Your task to perform on an android device: change notifications settings Image 0: 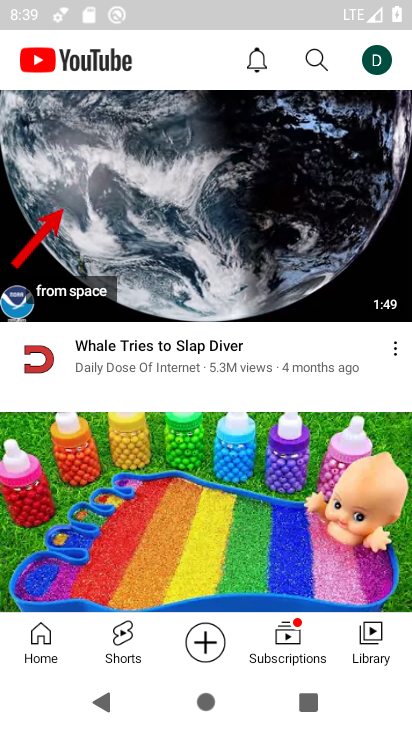
Step 0: press home button
Your task to perform on an android device: change notifications settings Image 1: 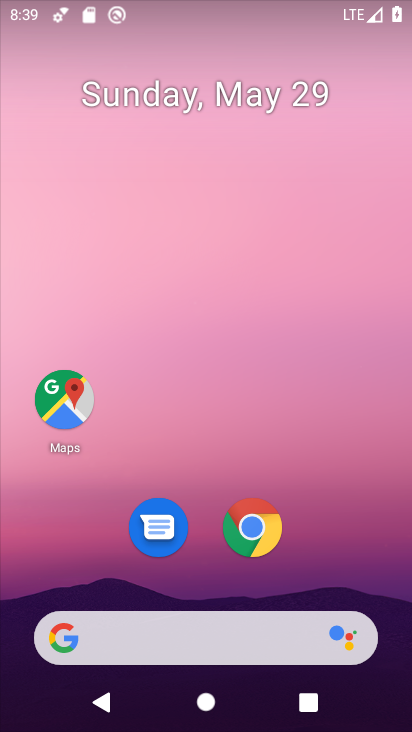
Step 1: drag from (212, 575) to (195, 7)
Your task to perform on an android device: change notifications settings Image 2: 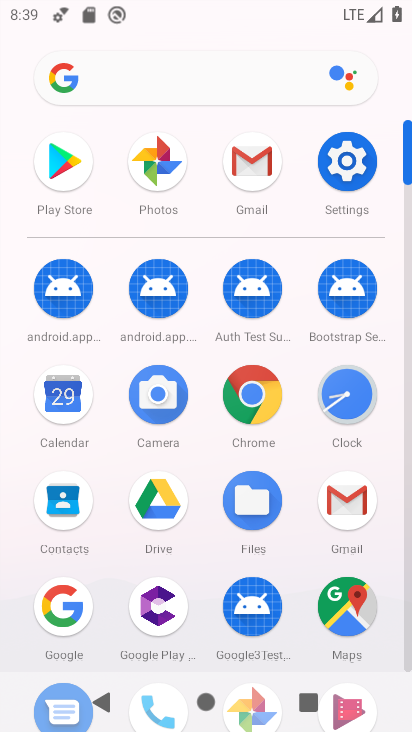
Step 2: click (345, 159)
Your task to perform on an android device: change notifications settings Image 3: 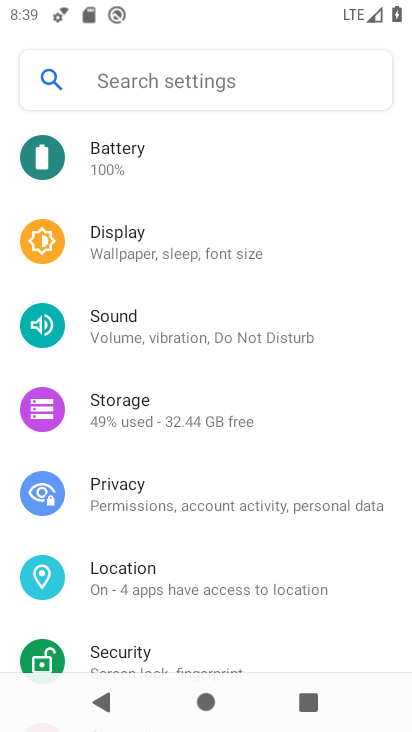
Step 3: drag from (174, 335) to (200, 577)
Your task to perform on an android device: change notifications settings Image 4: 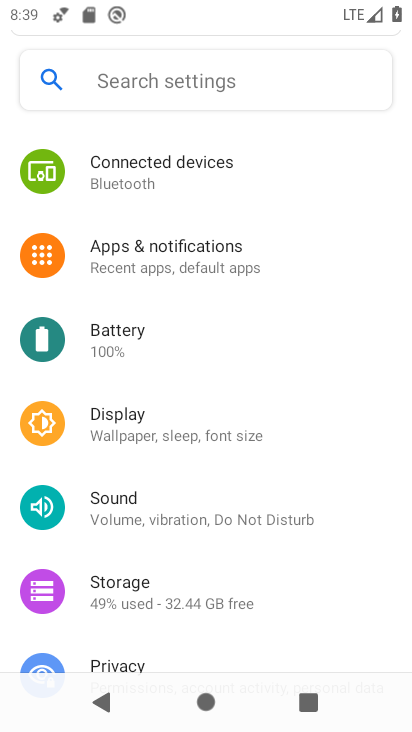
Step 4: click (270, 249)
Your task to perform on an android device: change notifications settings Image 5: 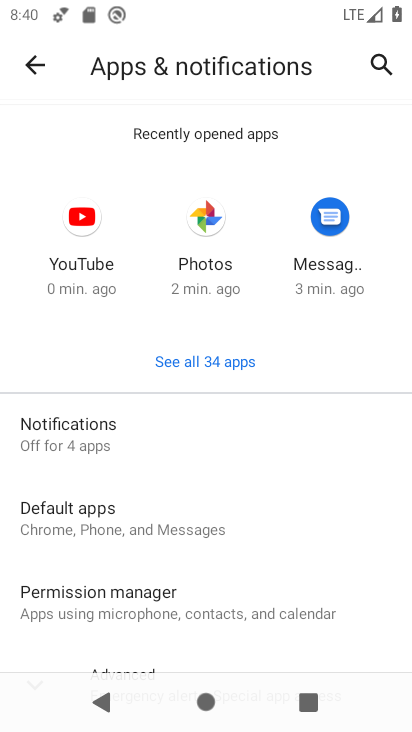
Step 5: click (132, 437)
Your task to perform on an android device: change notifications settings Image 6: 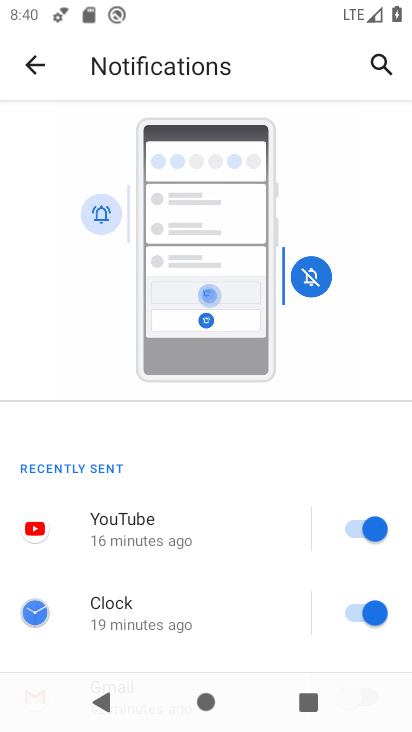
Step 6: drag from (232, 612) to (228, 126)
Your task to perform on an android device: change notifications settings Image 7: 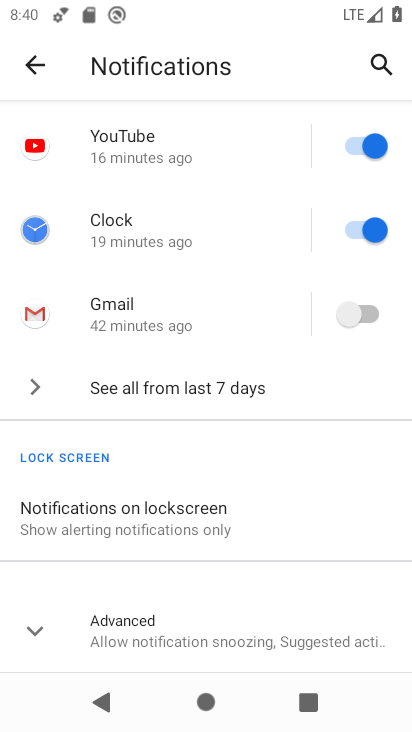
Step 7: click (35, 624)
Your task to perform on an android device: change notifications settings Image 8: 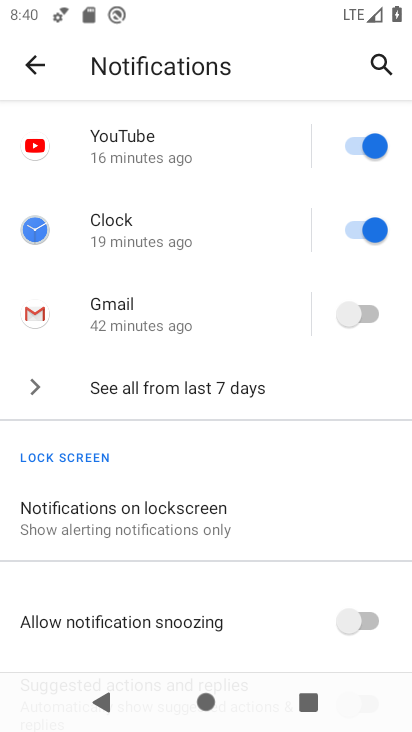
Step 8: click (362, 125)
Your task to perform on an android device: change notifications settings Image 9: 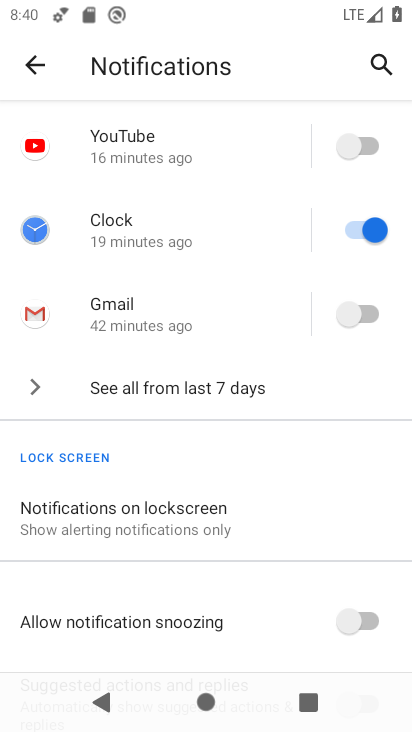
Step 9: click (361, 228)
Your task to perform on an android device: change notifications settings Image 10: 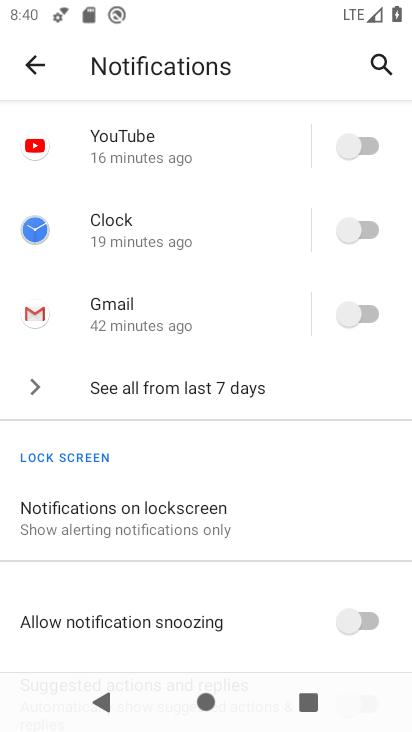
Step 10: click (361, 617)
Your task to perform on an android device: change notifications settings Image 11: 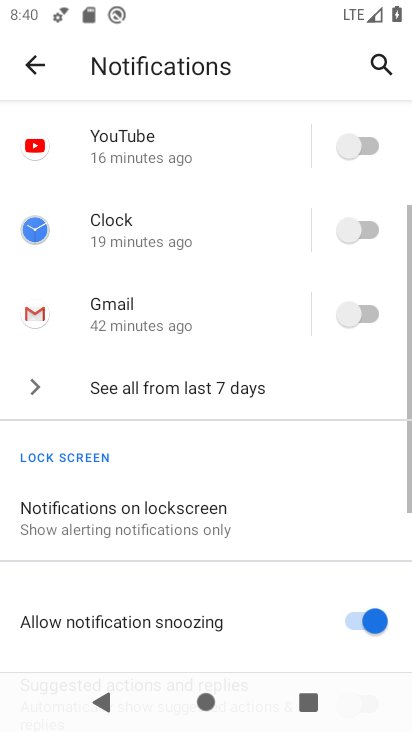
Step 11: drag from (246, 589) to (234, 130)
Your task to perform on an android device: change notifications settings Image 12: 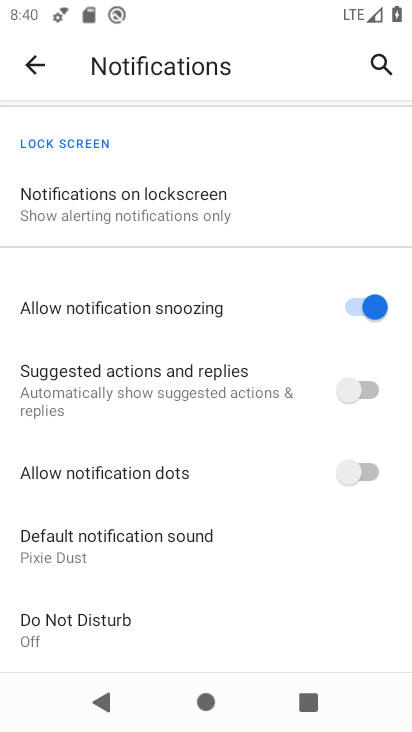
Step 12: click (347, 389)
Your task to perform on an android device: change notifications settings Image 13: 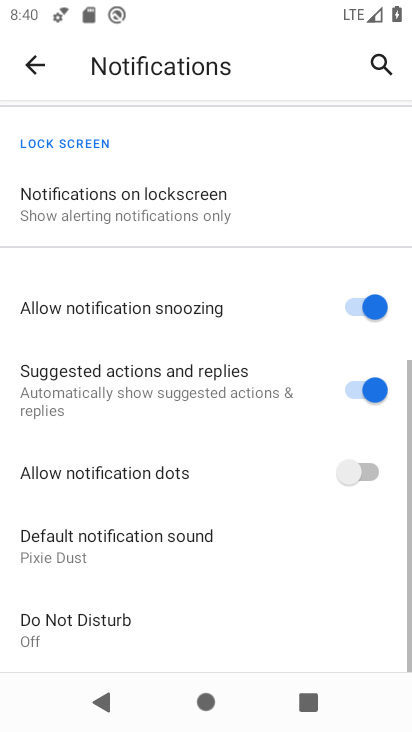
Step 13: click (351, 466)
Your task to perform on an android device: change notifications settings Image 14: 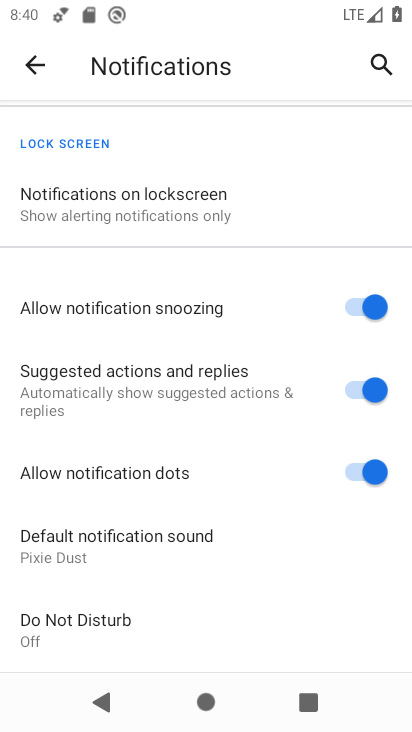
Step 14: task complete